Your task to perform on an android device: Do I have any events today? Image 0: 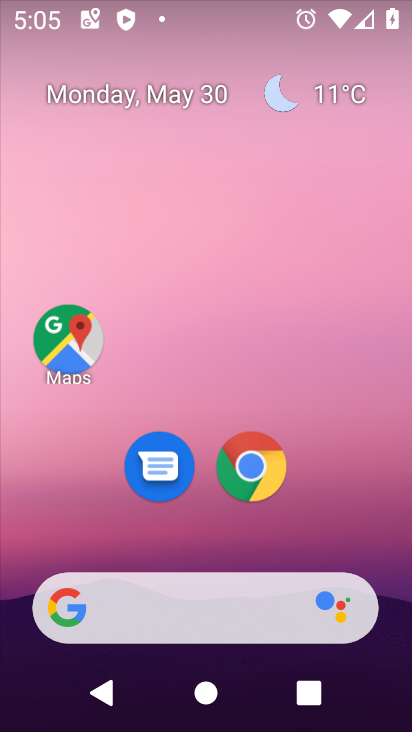
Step 0: drag from (365, 515) to (242, 103)
Your task to perform on an android device: Do I have any events today? Image 1: 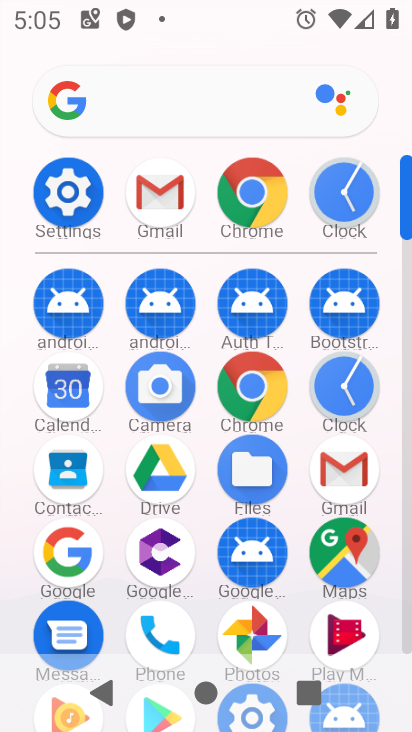
Step 1: click (71, 393)
Your task to perform on an android device: Do I have any events today? Image 2: 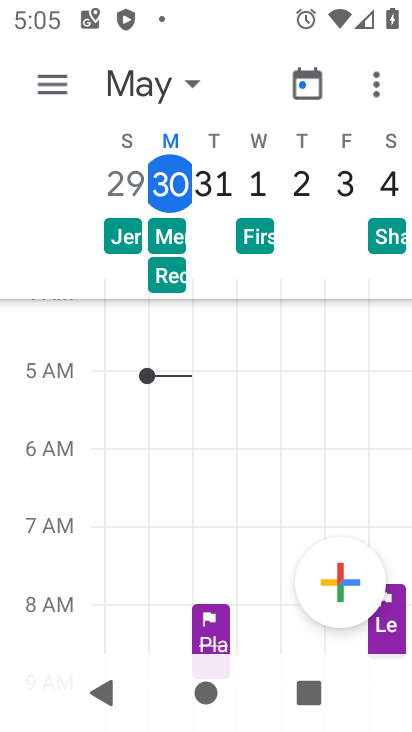
Step 2: click (148, 87)
Your task to perform on an android device: Do I have any events today? Image 3: 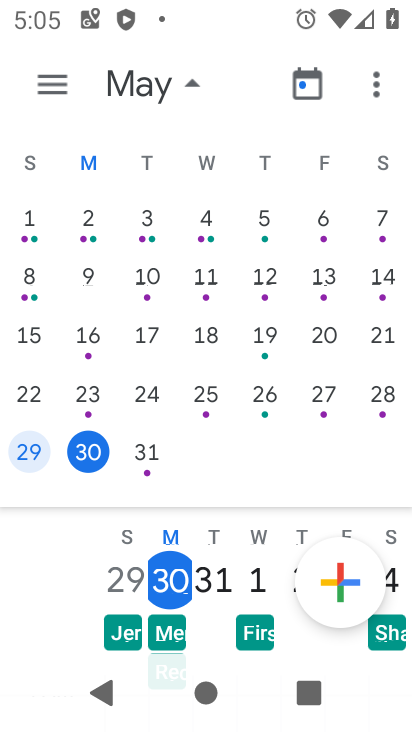
Step 3: click (344, 349)
Your task to perform on an android device: Do I have any events today? Image 4: 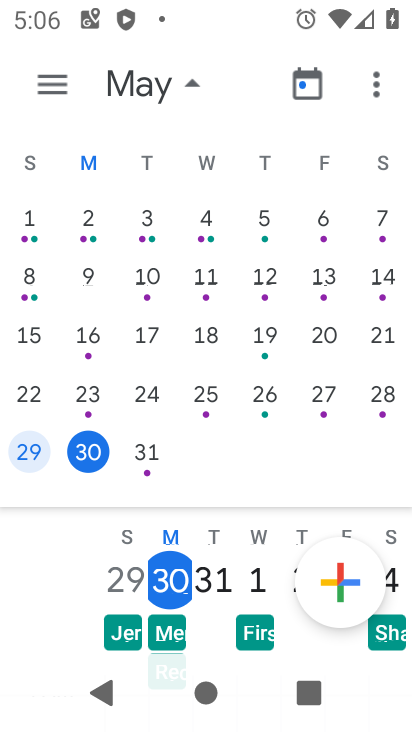
Step 4: click (174, 452)
Your task to perform on an android device: Do I have any events today? Image 5: 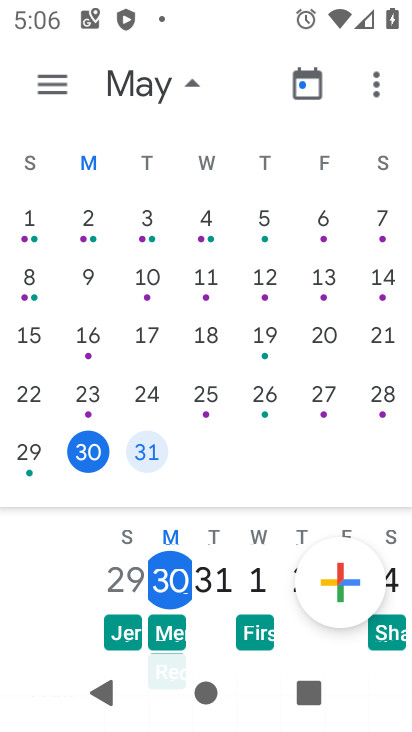
Step 5: click (140, 448)
Your task to perform on an android device: Do I have any events today? Image 6: 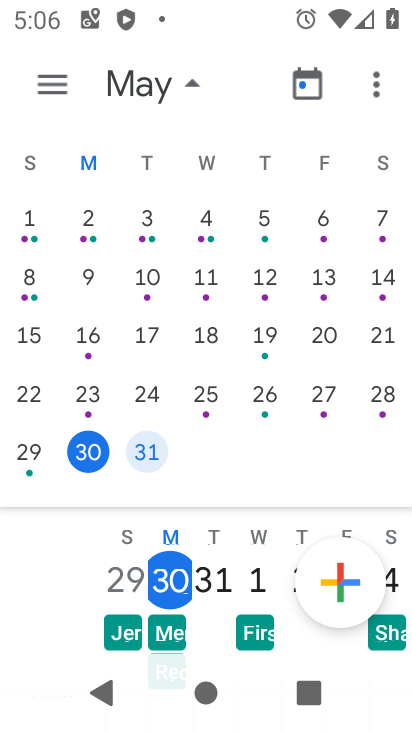
Step 6: task complete